Your task to perform on an android device: Open Chrome and go to settings Image 0: 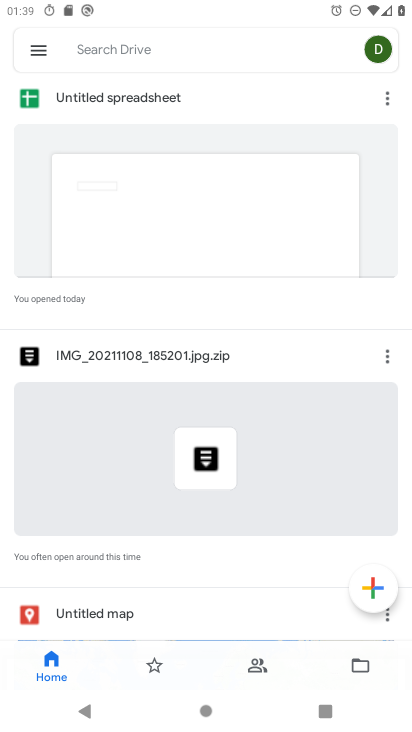
Step 0: press home button
Your task to perform on an android device: Open Chrome and go to settings Image 1: 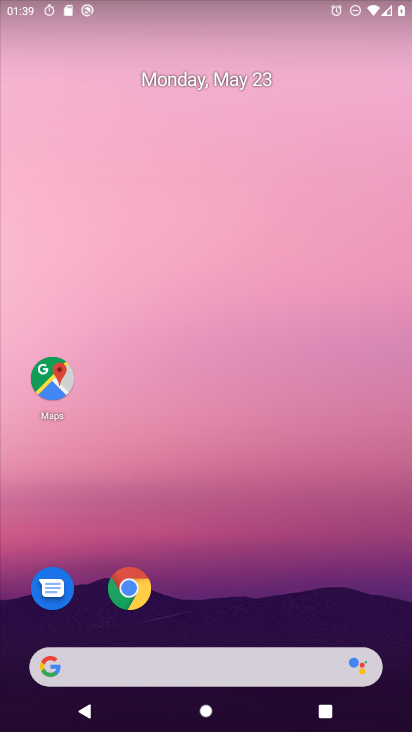
Step 1: drag from (245, 693) to (237, 88)
Your task to perform on an android device: Open Chrome and go to settings Image 2: 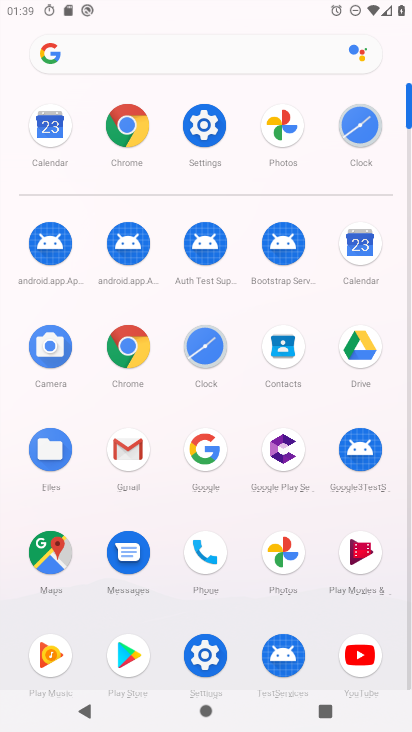
Step 2: click (134, 107)
Your task to perform on an android device: Open Chrome and go to settings Image 3: 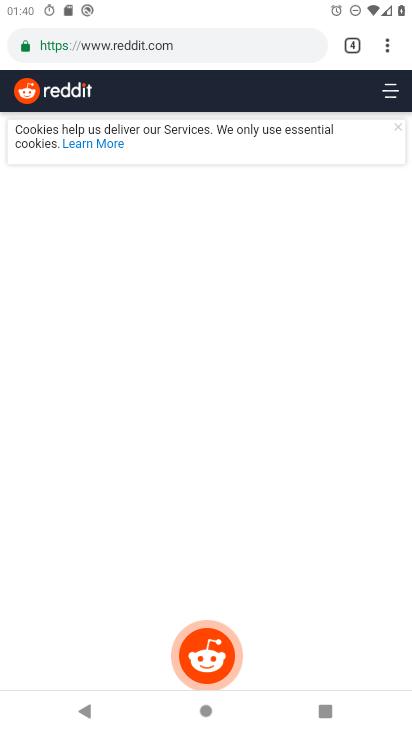
Step 3: click (386, 48)
Your task to perform on an android device: Open Chrome and go to settings Image 4: 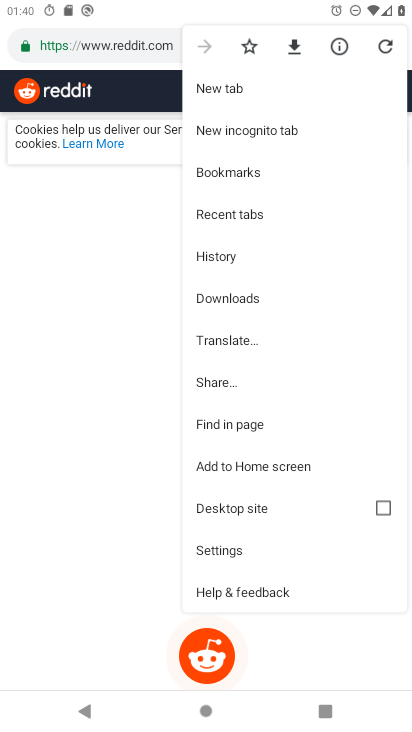
Step 4: click (241, 549)
Your task to perform on an android device: Open Chrome and go to settings Image 5: 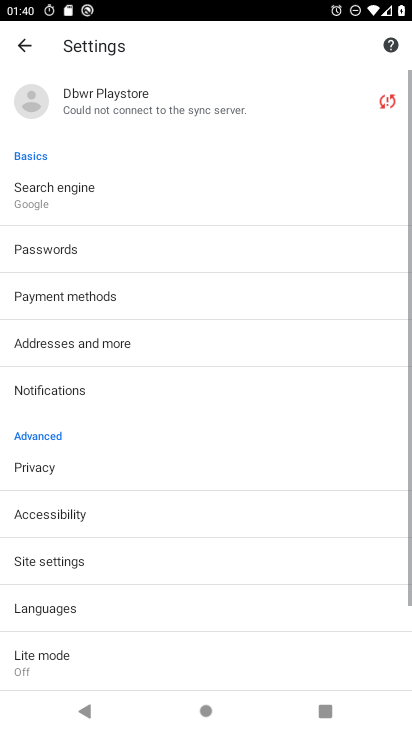
Step 5: task complete